Your task to perform on an android device: toggle wifi Image 0: 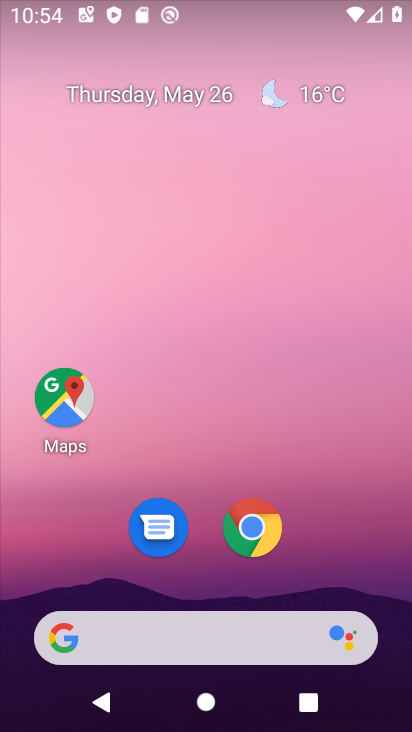
Step 0: drag from (314, 570) to (274, 4)
Your task to perform on an android device: toggle wifi Image 1: 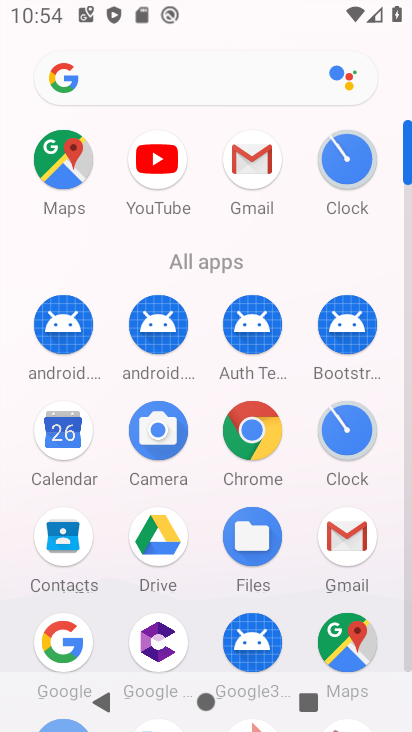
Step 1: drag from (190, 520) to (221, 234)
Your task to perform on an android device: toggle wifi Image 2: 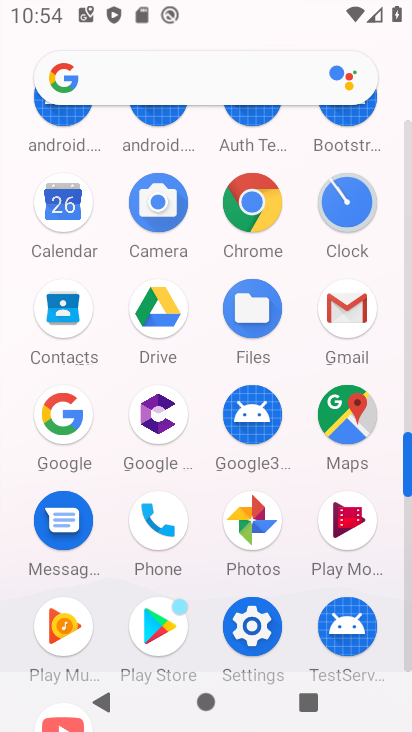
Step 2: click (253, 632)
Your task to perform on an android device: toggle wifi Image 3: 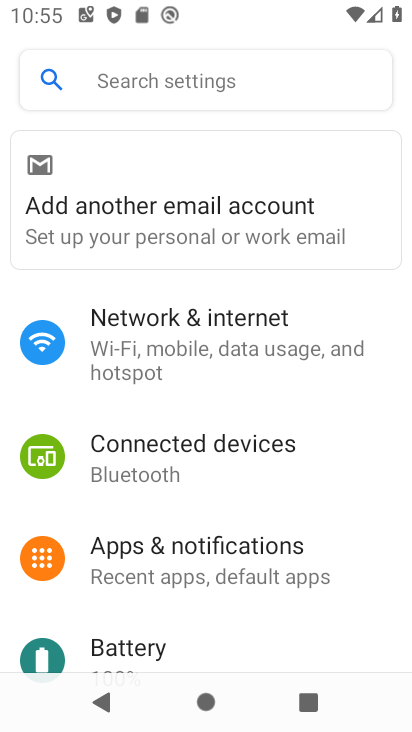
Step 3: click (148, 346)
Your task to perform on an android device: toggle wifi Image 4: 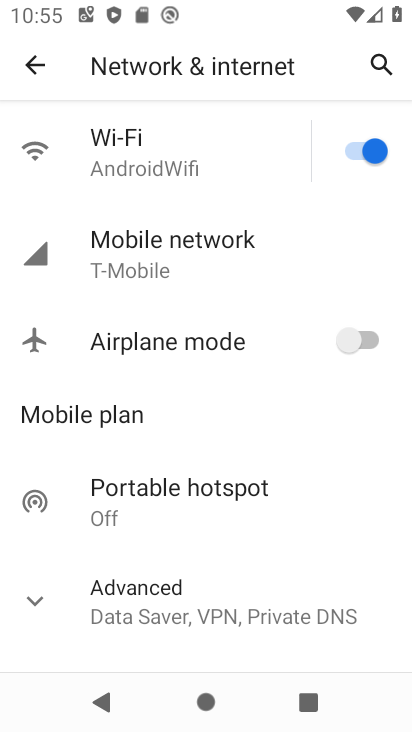
Step 4: click (368, 157)
Your task to perform on an android device: toggle wifi Image 5: 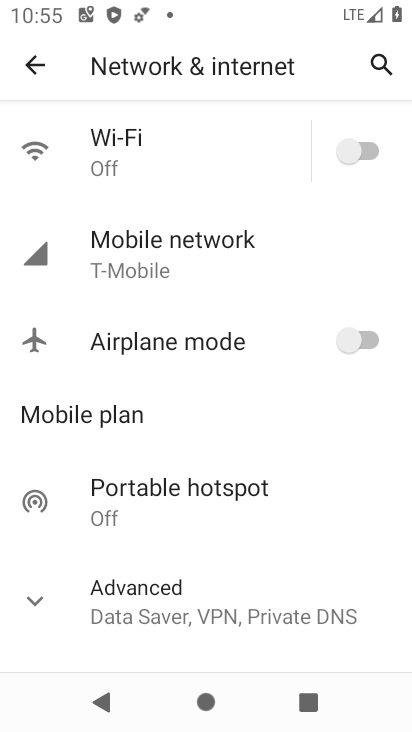
Step 5: task complete